Your task to perform on an android device: What's the weather today? Image 0: 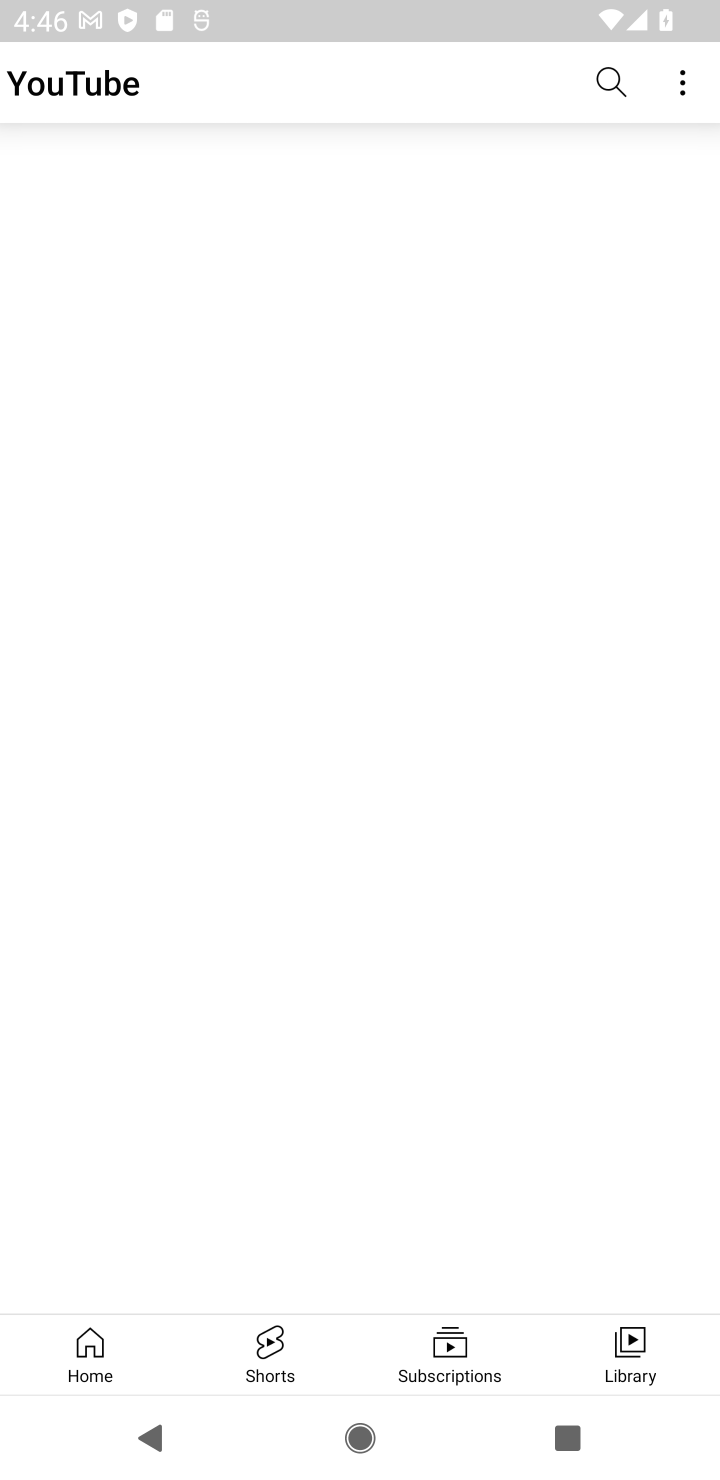
Step 0: press home button
Your task to perform on an android device: What's the weather today? Image 1: 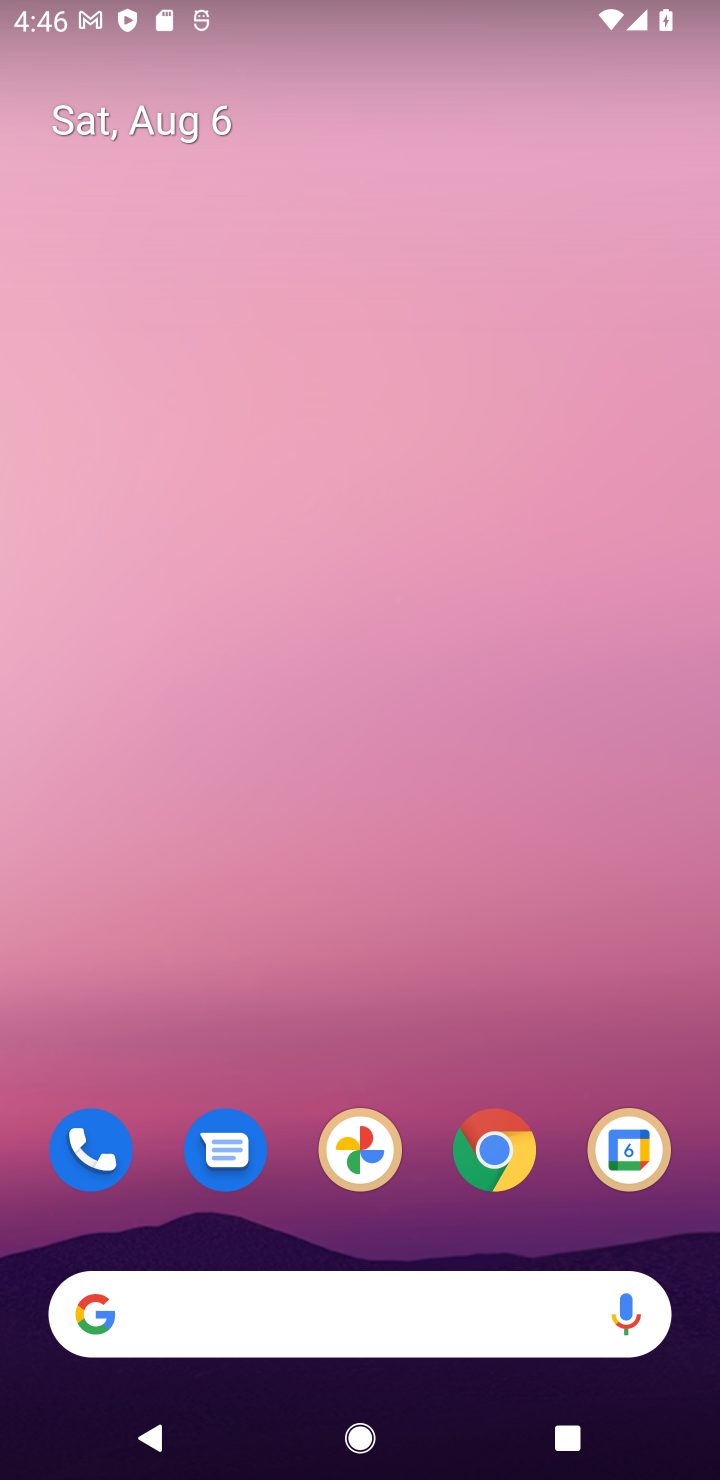
Step 1: click (289, 1317)
Your task to perform on an android device: What's the weather today? Image 2: 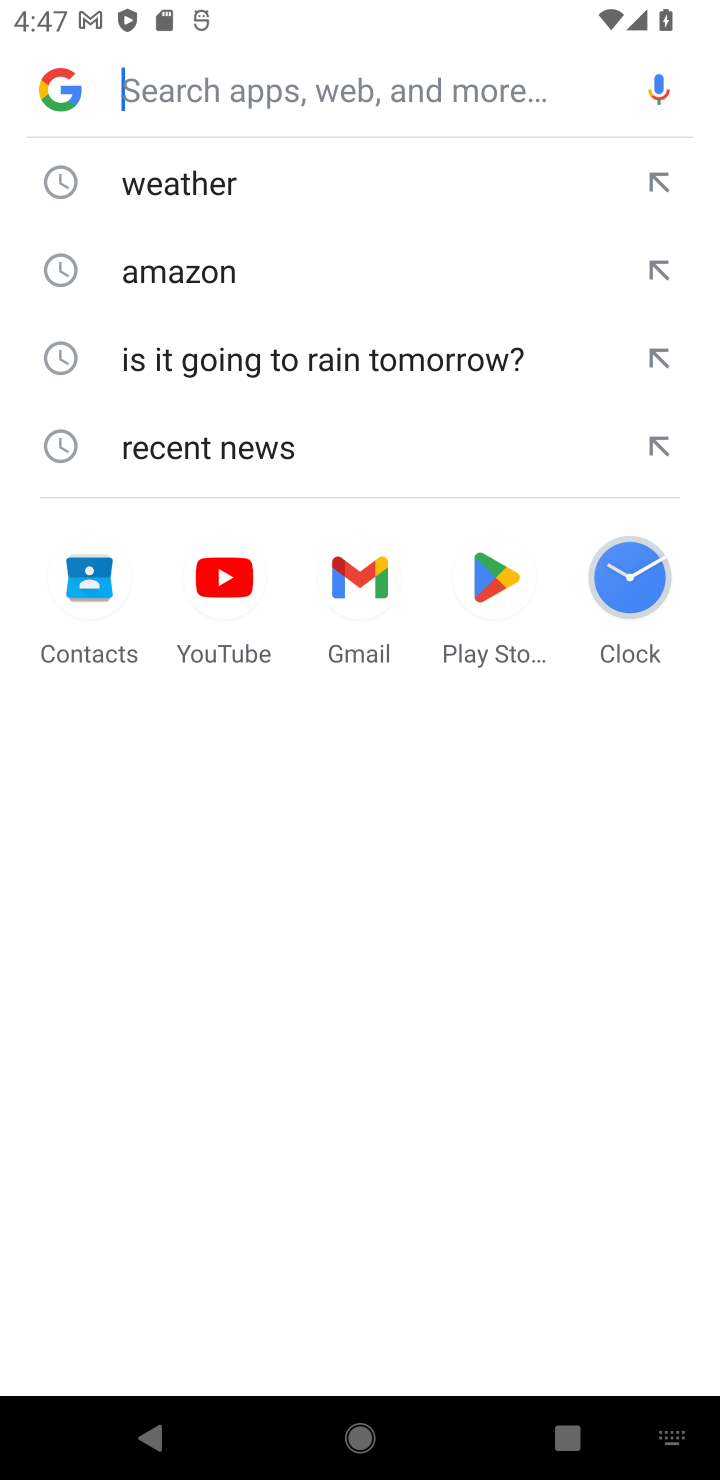
Step 2: type "what's the weather today"
Your task to perform on an android device: What's the weather today? Image 3: 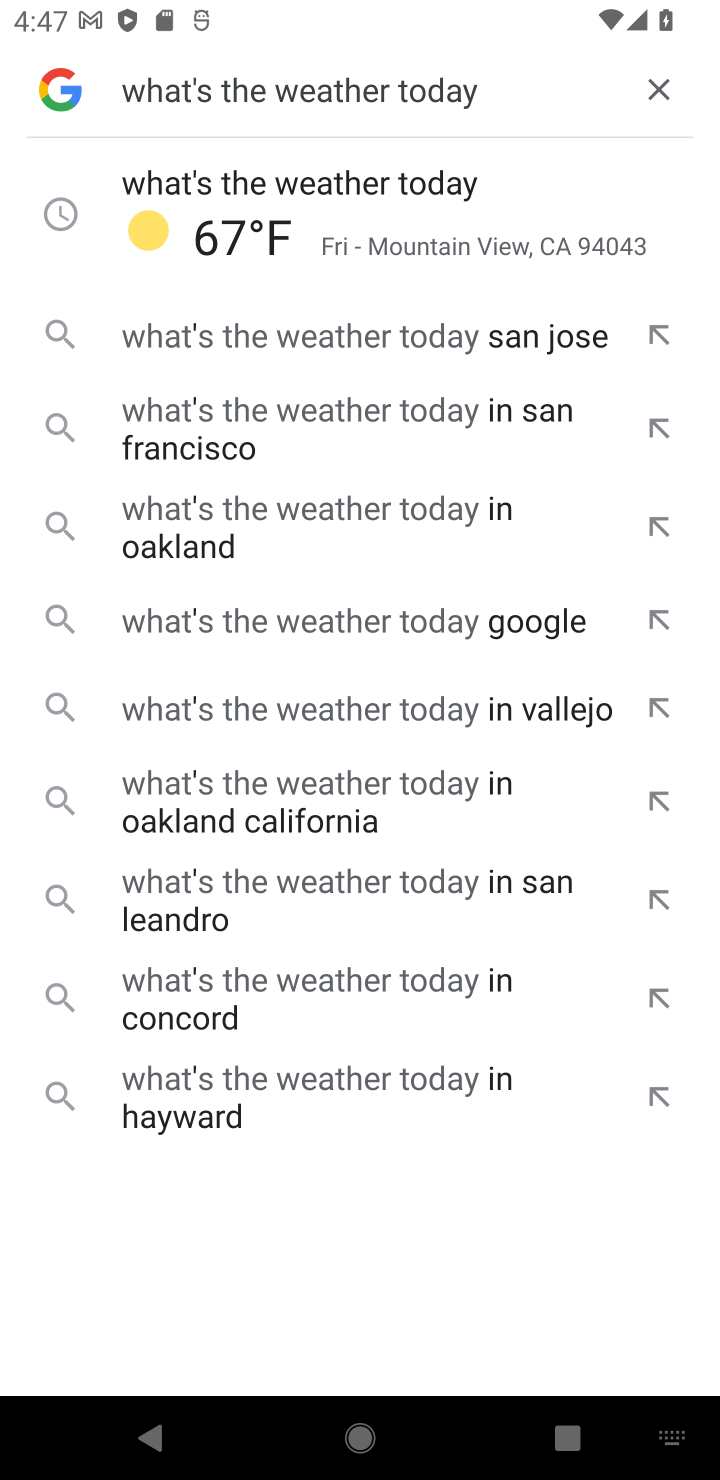
Step 3: click (294, 193)
Your task to perform on an android device: What's the weather today? Image 4: 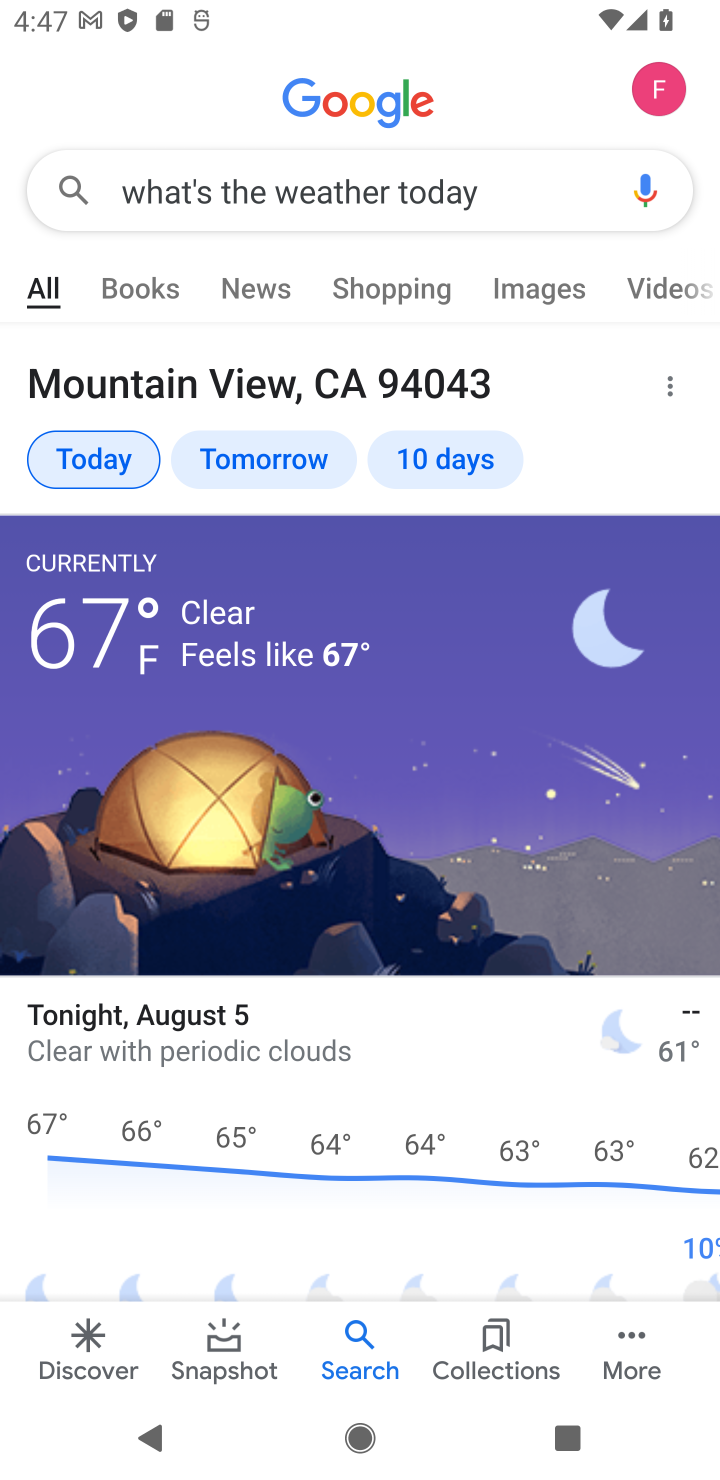
Step 4: task complete